Your task to perform on an android device: Open Maps and search for coffee Image 0: 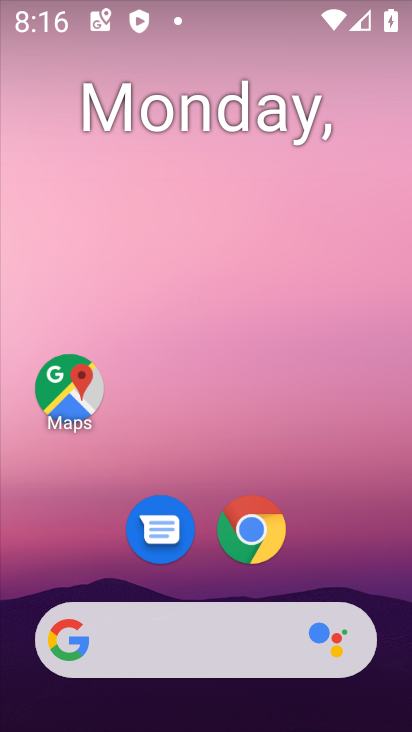
Step 0: drag from (169, 623) to (115, 120)
Your task to perform on an android device: Open Maps and search for coffee Image 1: 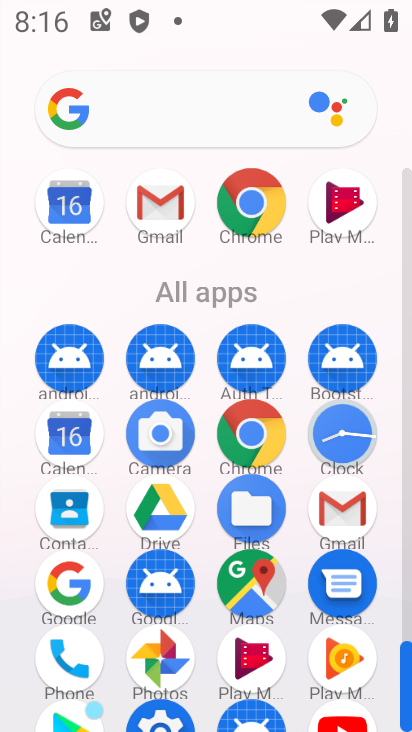
Step 1: click (150, 204)
Your task to perform on an android device: Open Maps and search for coffee Image 2: 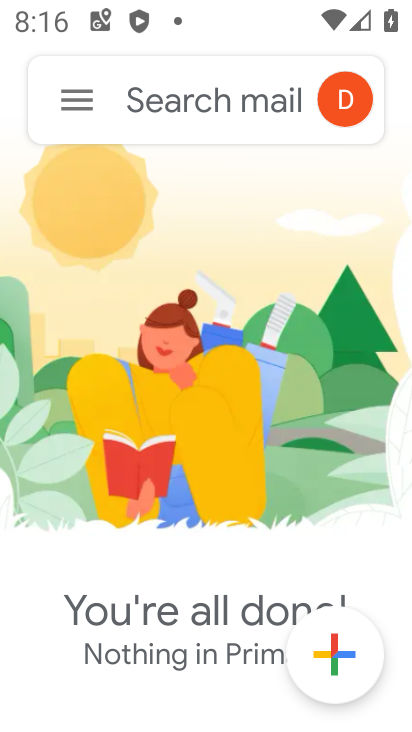
Step 2: click (62, 85)
Your task to perform on an android device: Open Maps and search for coffee Image 3: 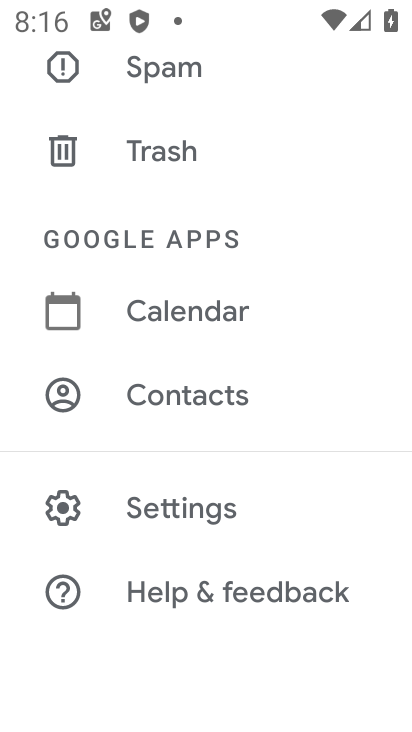
Step 3: drag from (202, 100) to (244, 484)
Your task to perform on an android device: Open Maps and search for coffee Image 4: 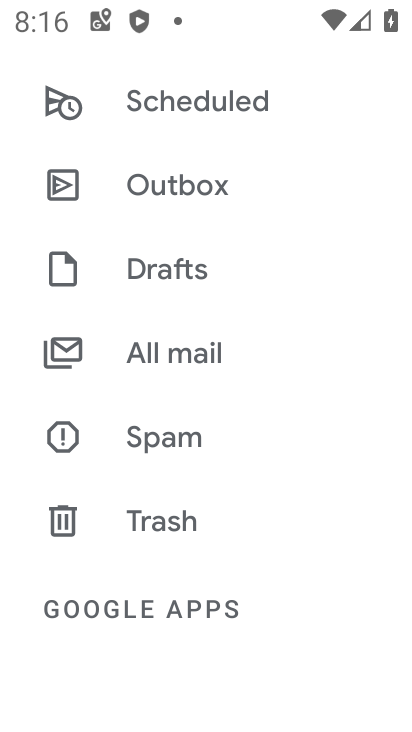
Step 4: click (202, 370)
Your task to perform on an android device: Open Maps and search for coffee Image 5: 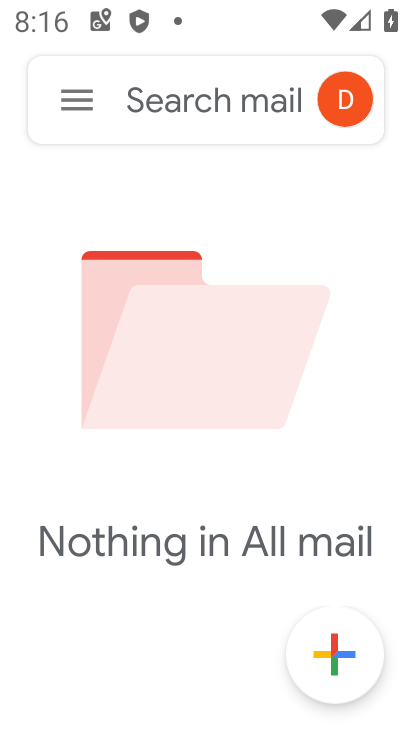
Step 5: press home button
Your task to perform on an android device: Open Maps and search for coffee Image 6: 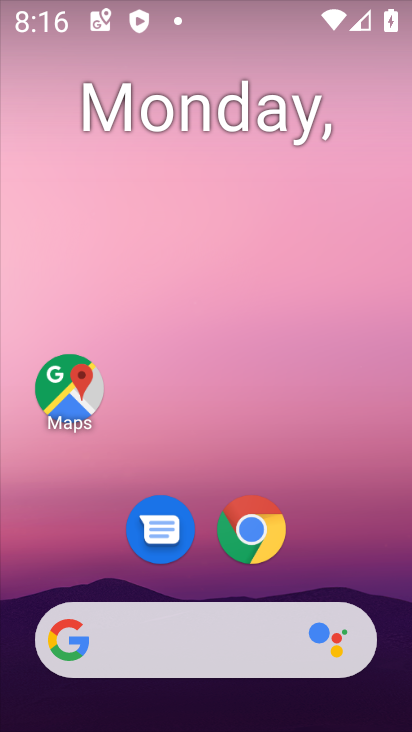
Step 6: click (80, 410)
Your task to perform on an android device: Open Maps and search for coffee Image 7: 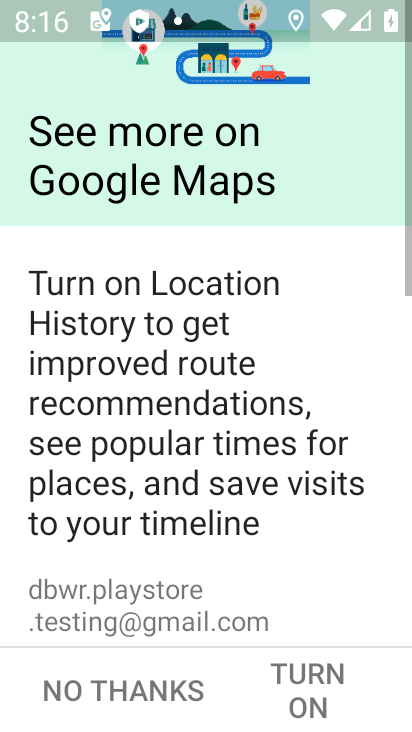
Step 7: click (265, 94)
Your task to perform on an android device: Open Maps and search for coffee Image 8: 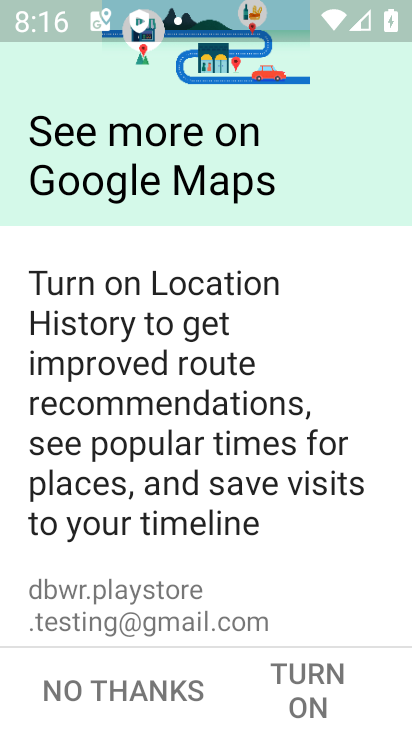
Step 8: click (325, 699)
Your task to perform on an android device: Open Maps and search for coffee Image 9: 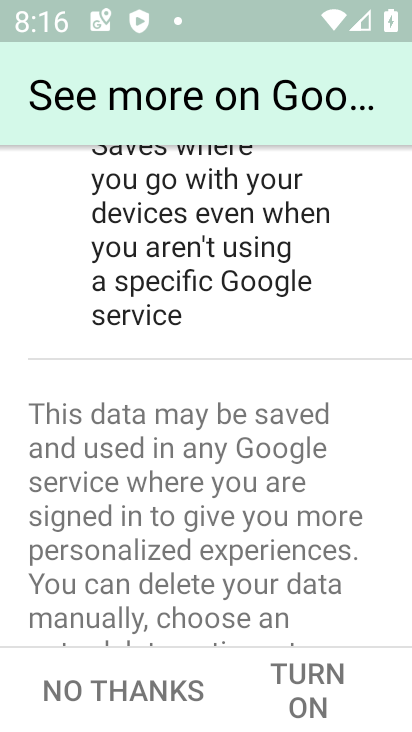
Step 9: click (325, 699)
Your task to perform on an android device: Open Maps and search for coffee Image 10: 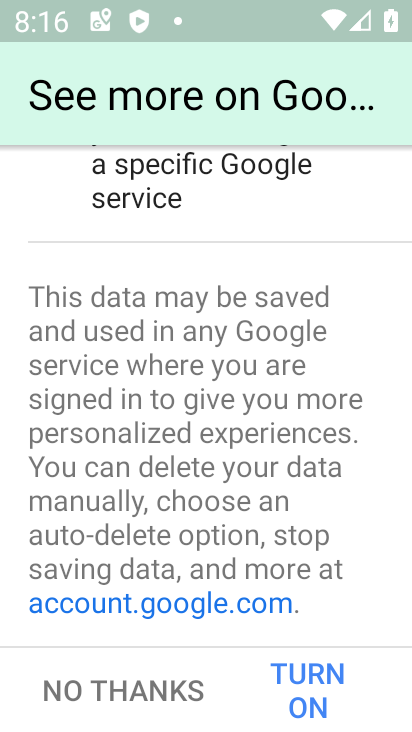
Step 10: click (325, 699)
Your task to perform on an android device: Open Maps and search for coffee Image 11: 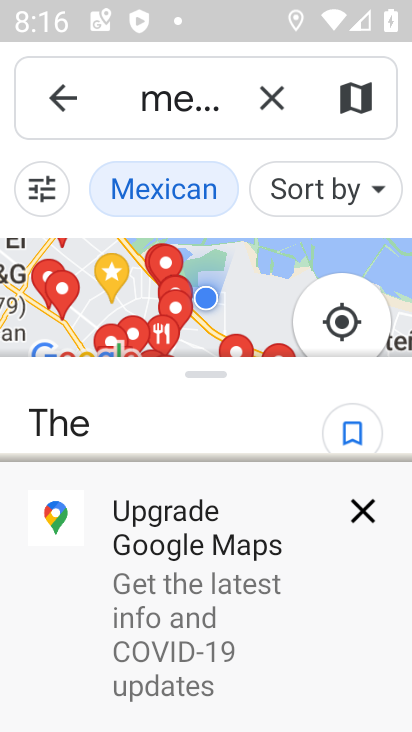
Step 11: click (255, 104)
Your task to perform on an android device: Open Maps and search for coffee Image 12: 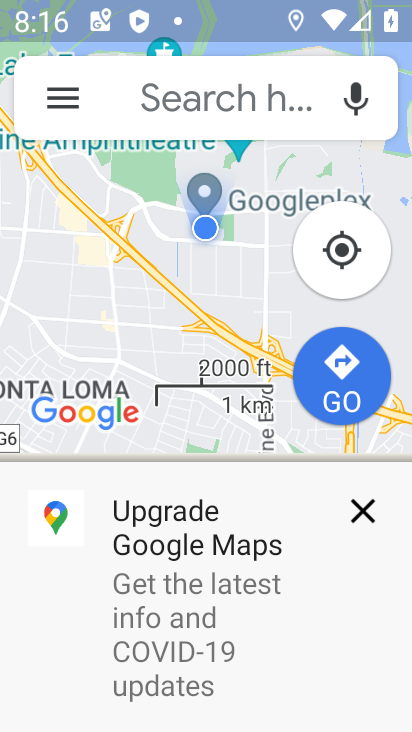
Step 12: click (240, 101)
Your task to perform on an android device: Open Maps and search for coffee Image 13: 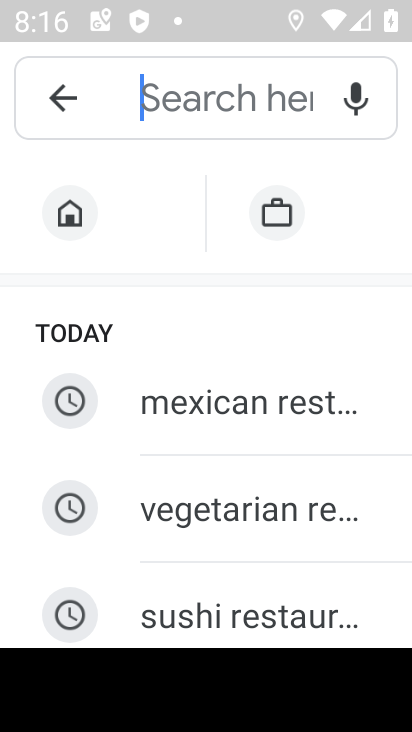
Step 13: type "coffee"
Your task to perform on an android device: Open Maps and search for coffee Image 14: 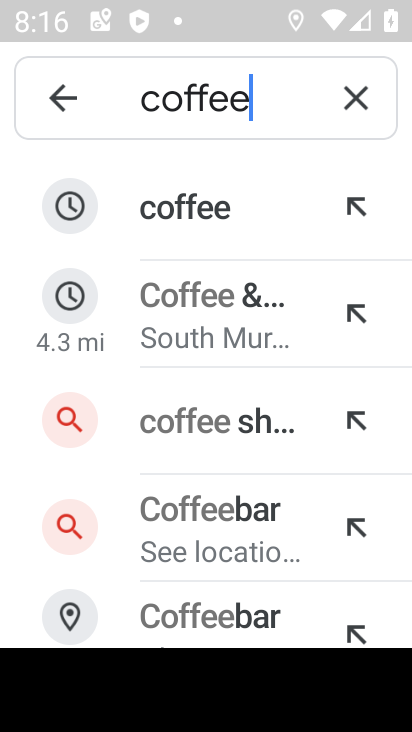
Step 14: click (204, 226)
Your task to perform on an android device: Open Maps and search for coffee Image 15: 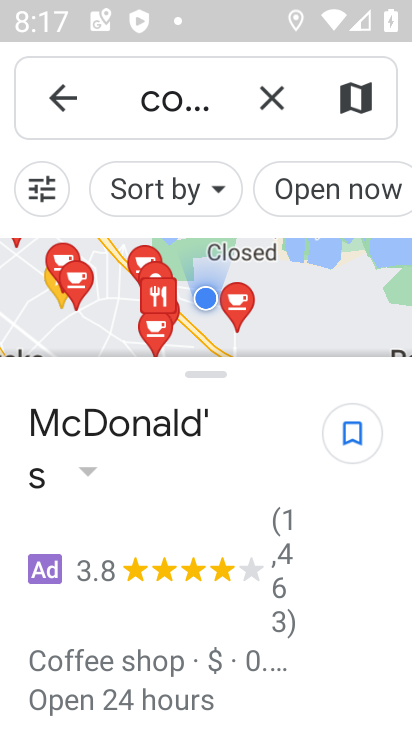
Step 15: task complete